Your task to perform on an android device: turn on the 24-hour format for clock Image 0: 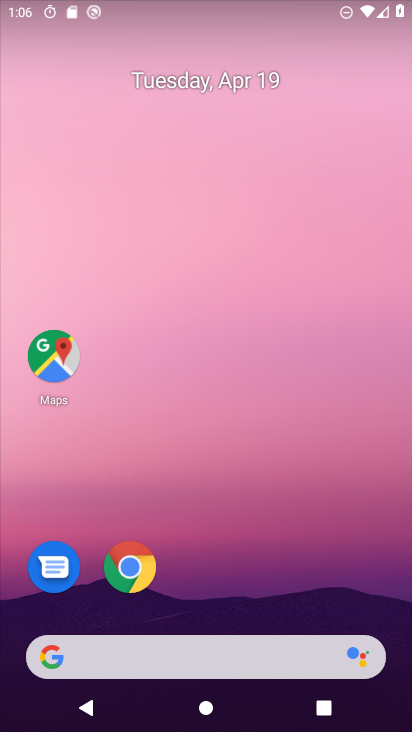
Step 0: drag from (272, 572) to (247, 144)
Your task to perform on an android device: turn on the 24-hour format for clock Image 1: 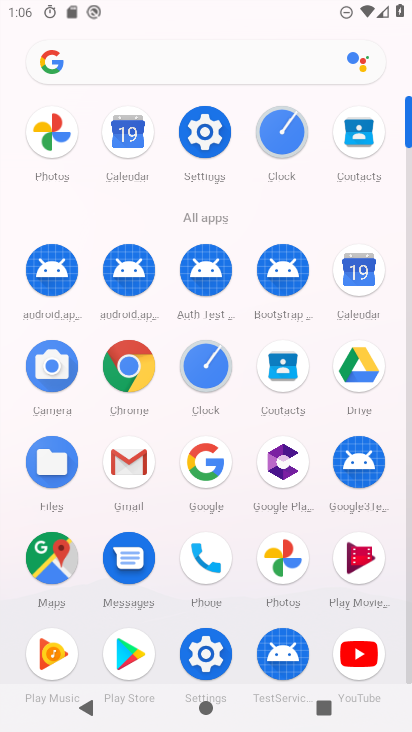
Step 1: click (201, 370)
Your task to perform on an android device: turn on the 24-hour format for clock Image 2: 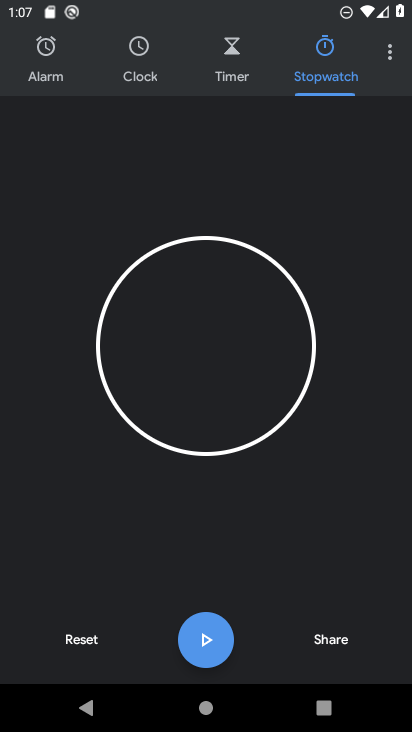
Step 2: click (385, 44)
Your task to perform on an android device: turn on the 24-hour format for clock Image 3: 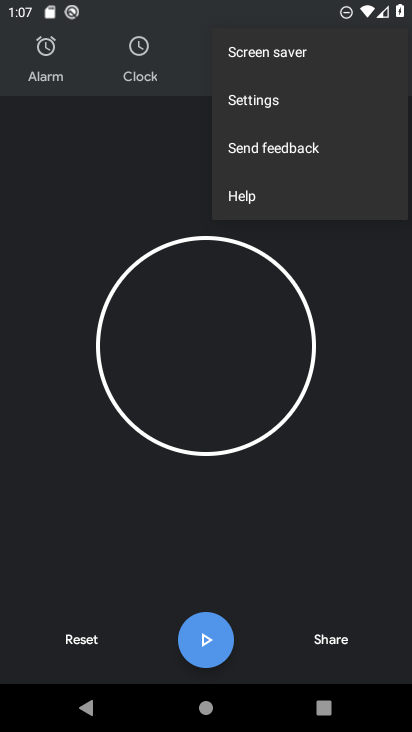
Step 3: click (254, 116)
Your task to perform on an android device: turn on the 24-hour format for clock Image 4: 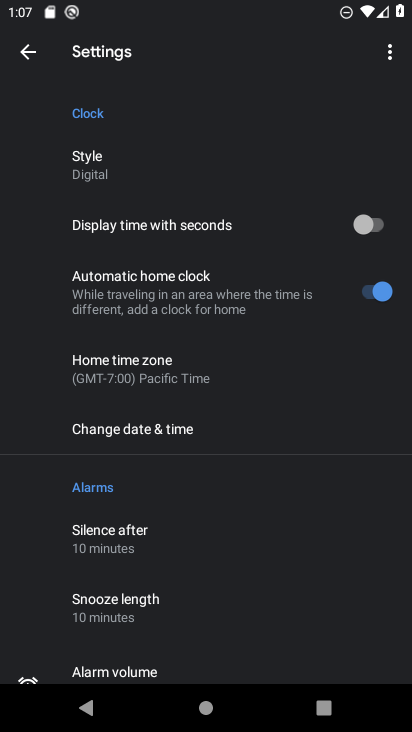
Step 4: click (191, 434)
Your task to perform on an android device: turn on the 24-hour format for clock Image 5: 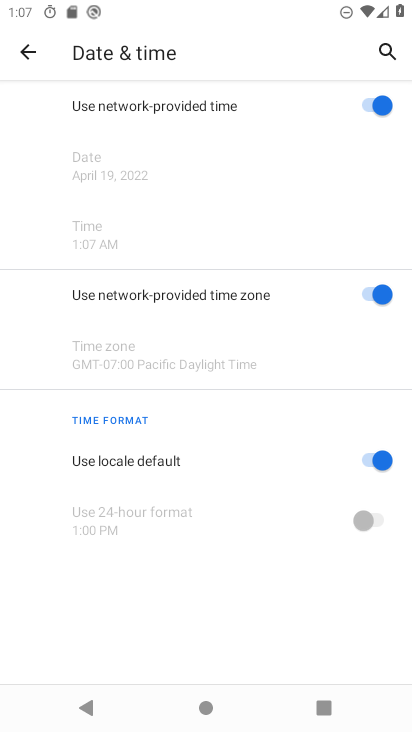
Step 5: click (376, 457)
Your task to perform on an android device: turn on the 24-hour format for clock Image 6: 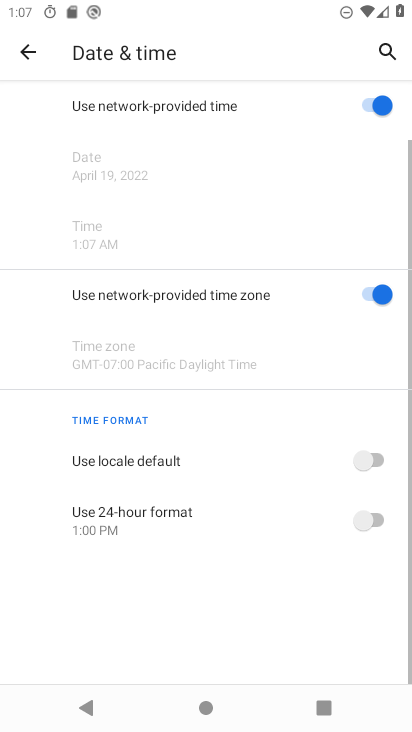
Step 6: click (379, 526)
Your task to perform on an android device: turn on the 24-hour format for clock Image 7: 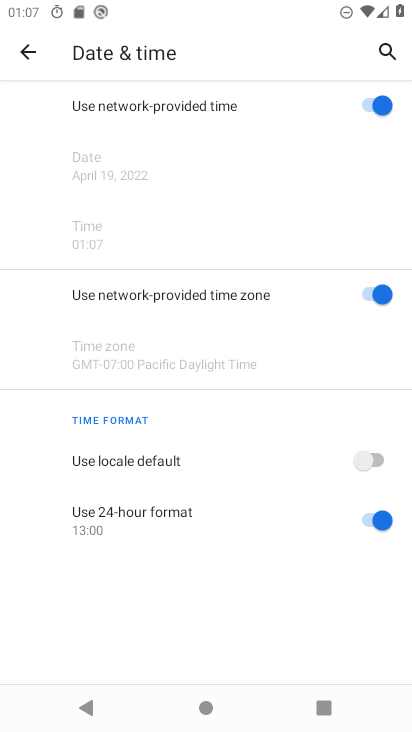
Step 7: task complete